Your task to perform on an android device: check google app version Image 0: 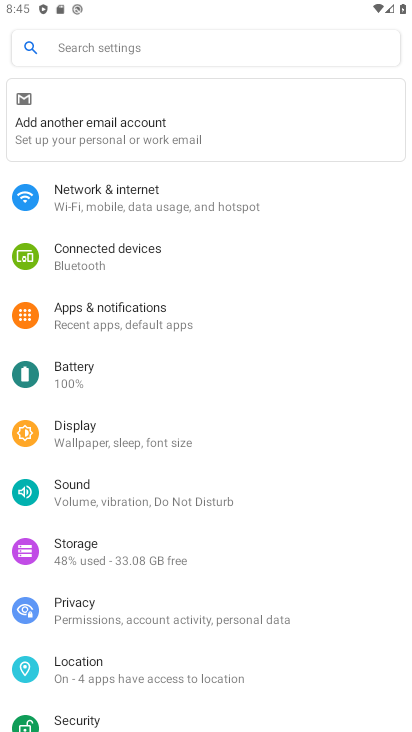
Step 0: press home button
Your task to perform on an android device: check google app version Image 1: 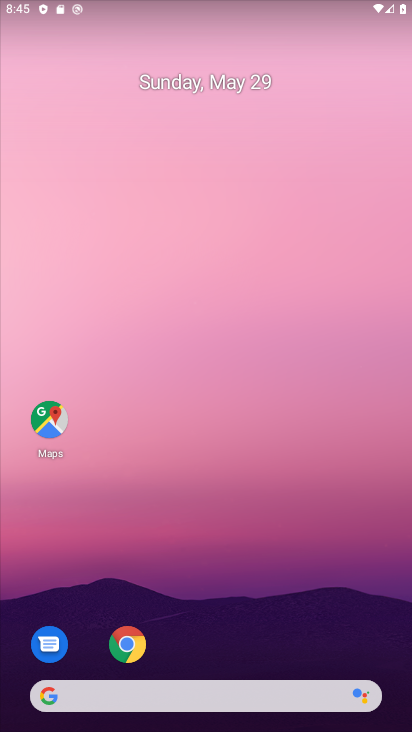
Step 1: drag from (128, 731) to (131, 66)
Your task to perform on an android device: check google app version Image 2: 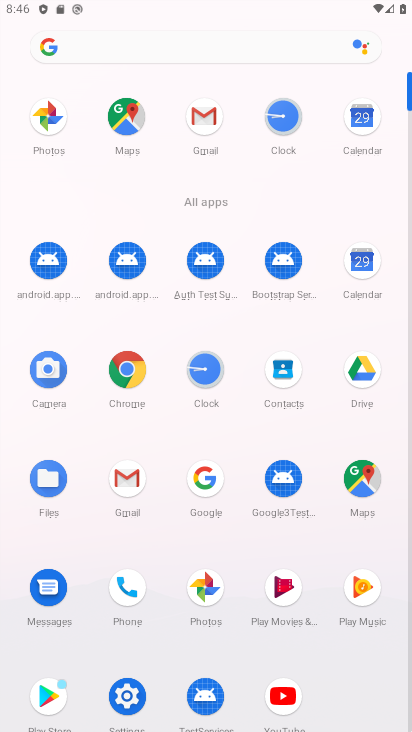
Step 2: click (206, 487)
Your task to perform on an android device: check google app version Image 3: 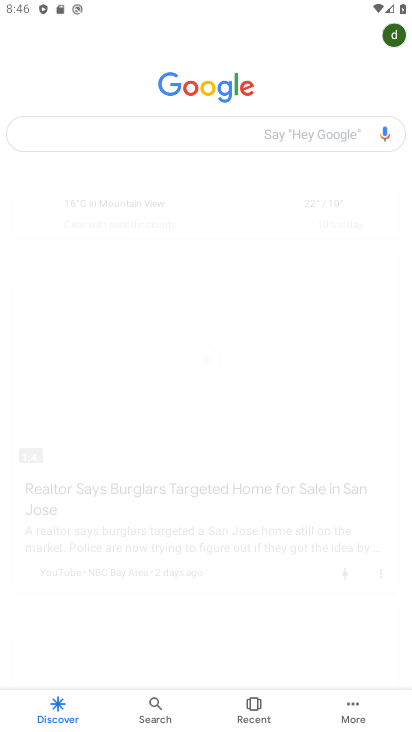
Step 3: click (347, 718)
Your task to perform on an android device: check google app version Image 4: 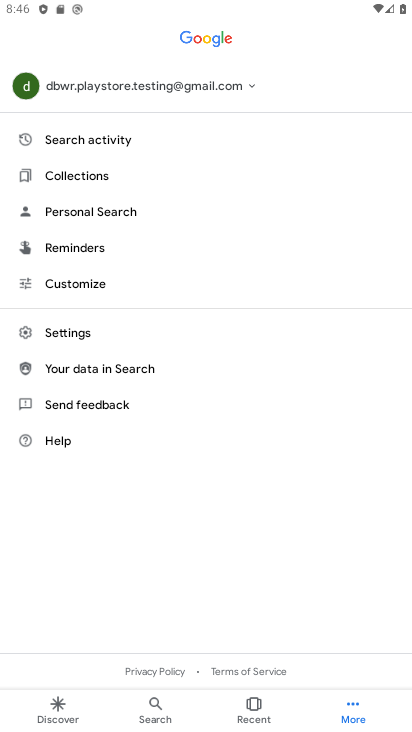
Step 4: click (62, 337)
Your task to perform on an android device: check google app version Image 5: 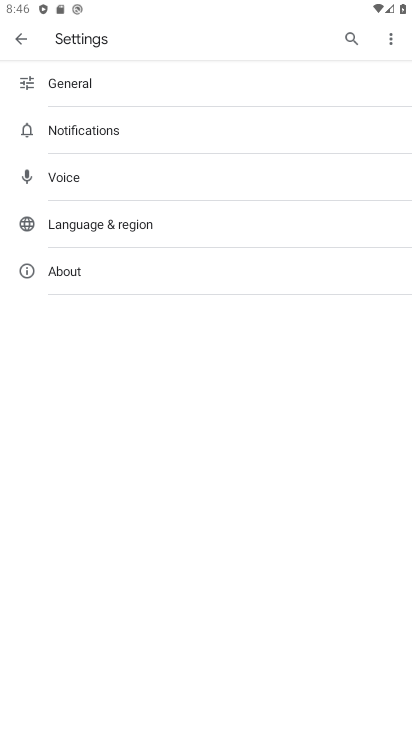
Step 5: click (48, 273)
Your task to perform on an android device: check google app version Image 6: 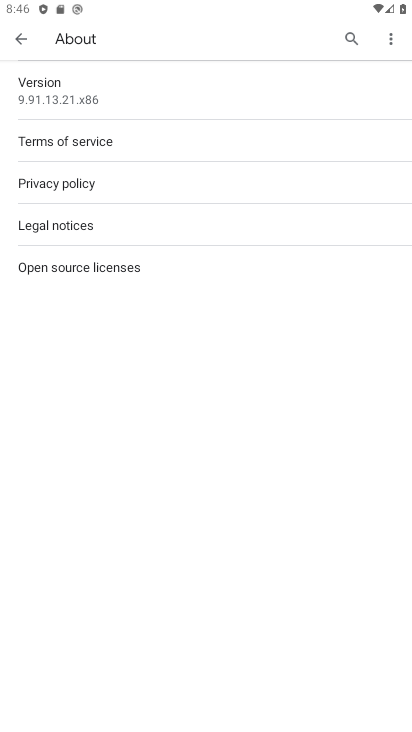
Step 6: task complete